Your task to perform on an android device: turn pop-ups on in chrome Image 0: 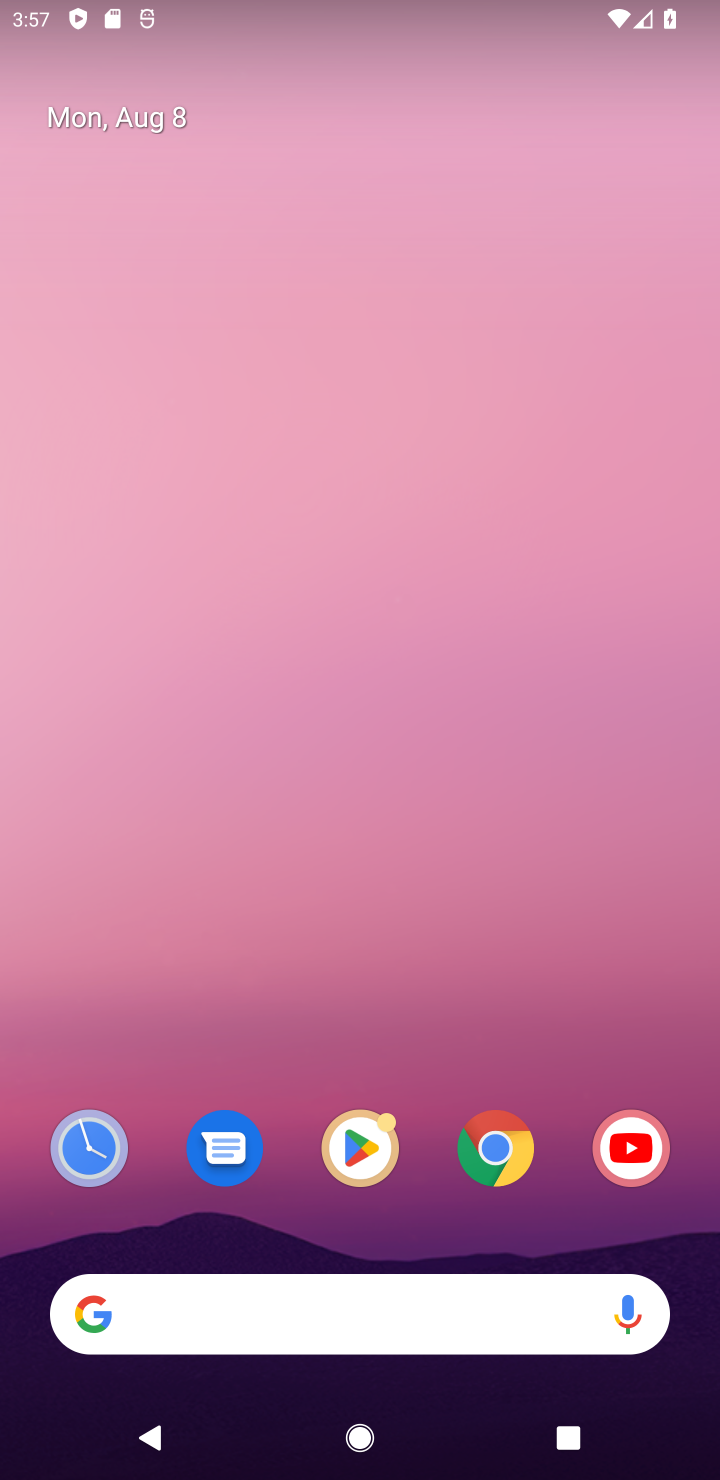
Step 0: drag from (202, 1082) to (21, 258)
Your task to perform on an android device: turn pop-ups on in chrome Image 1: 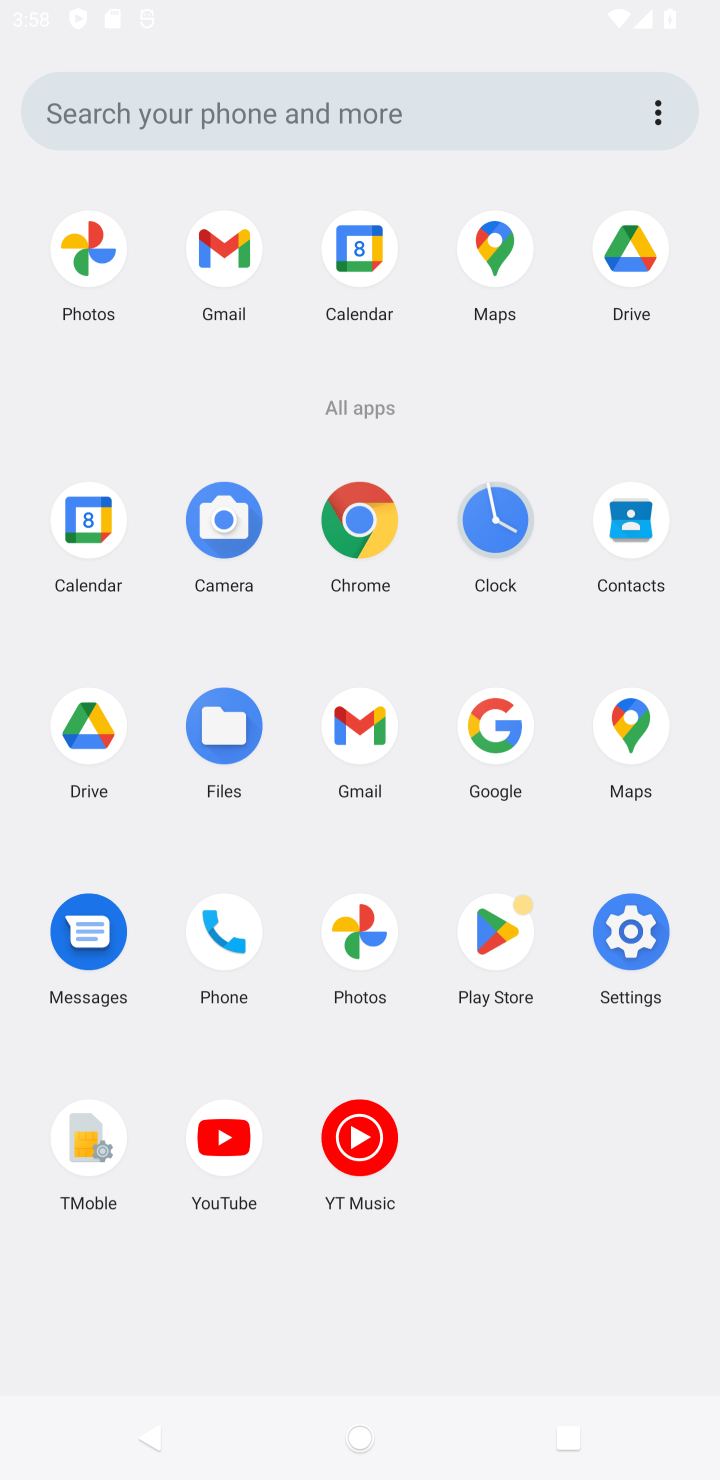
Step 1: click (359, 530)
Your task to perform on an android device: turn pop-ups on in chrome Image 2: 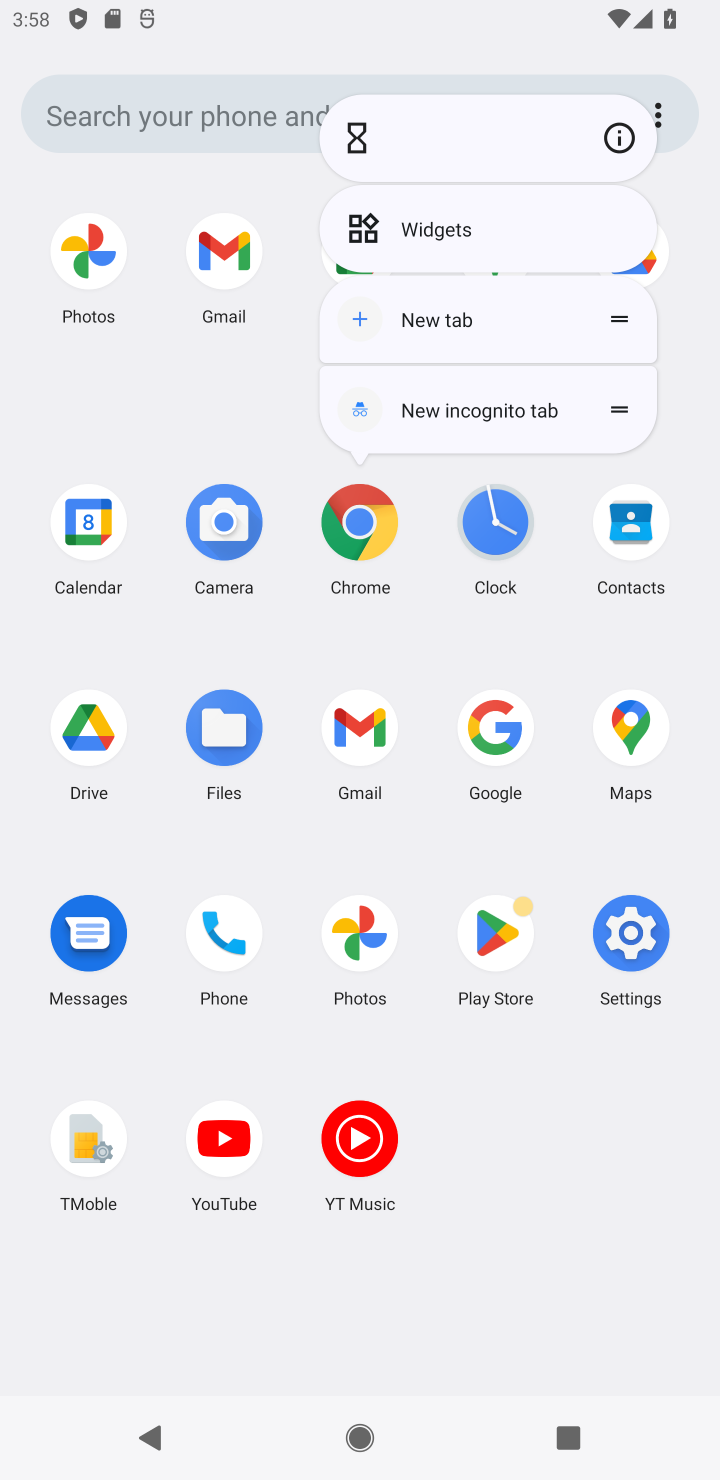
Step 2: click (359, 523)
Your task to perform on an android device: turn pop-ups on in chrome Image 3: 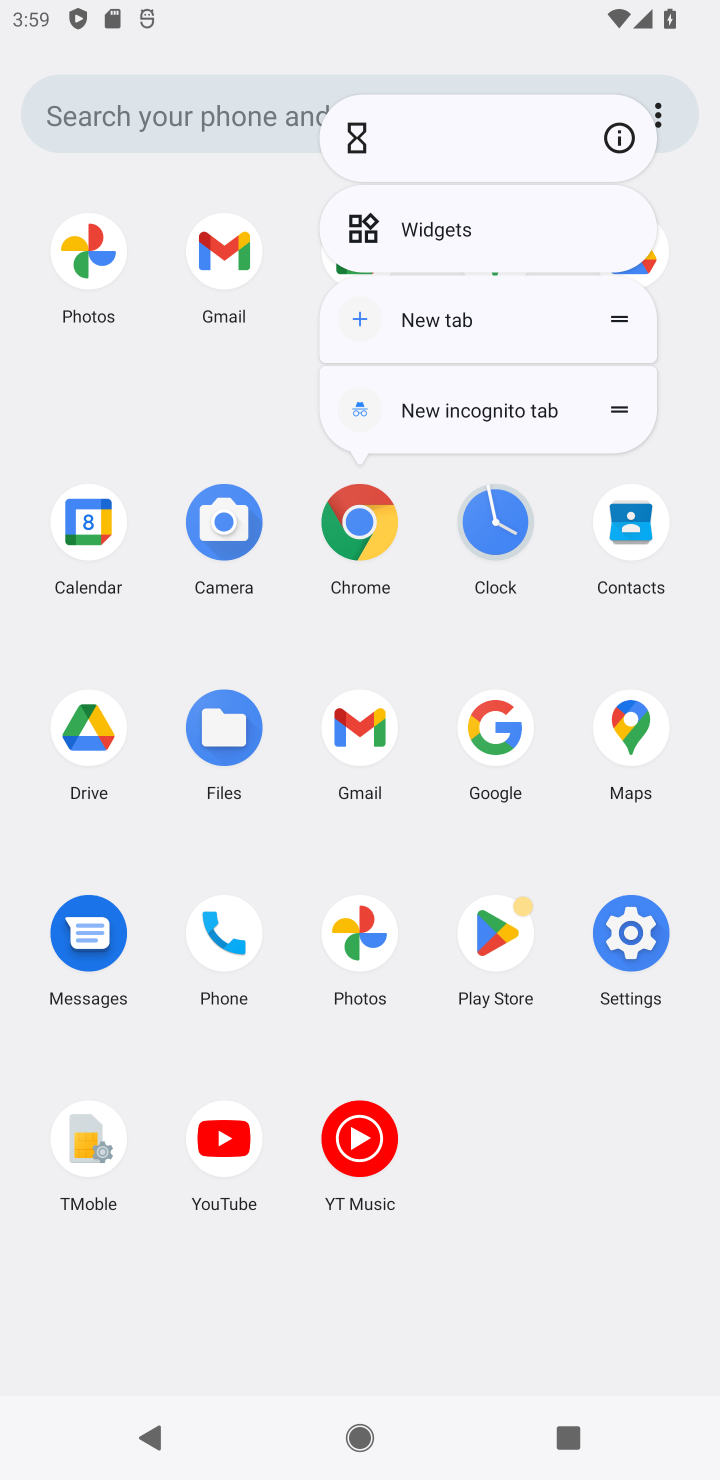
Step 3: click (359, 521)
Your task to perform on an android device: turn pop-ups on in chrome Image 4: 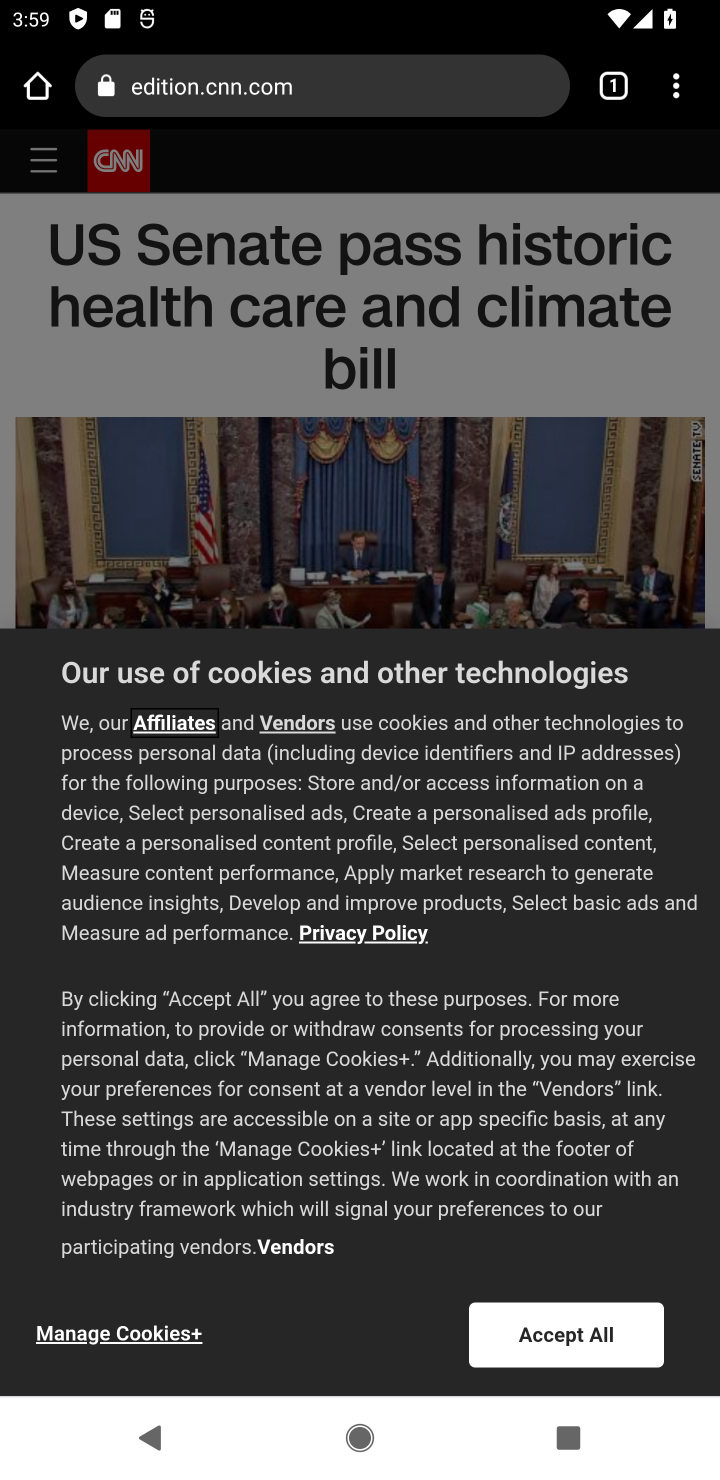
Step 4: drag from (684, 72) to (462, 1075)
Your task to perform on an android device: turn pop-ups on in chrome Image 5: 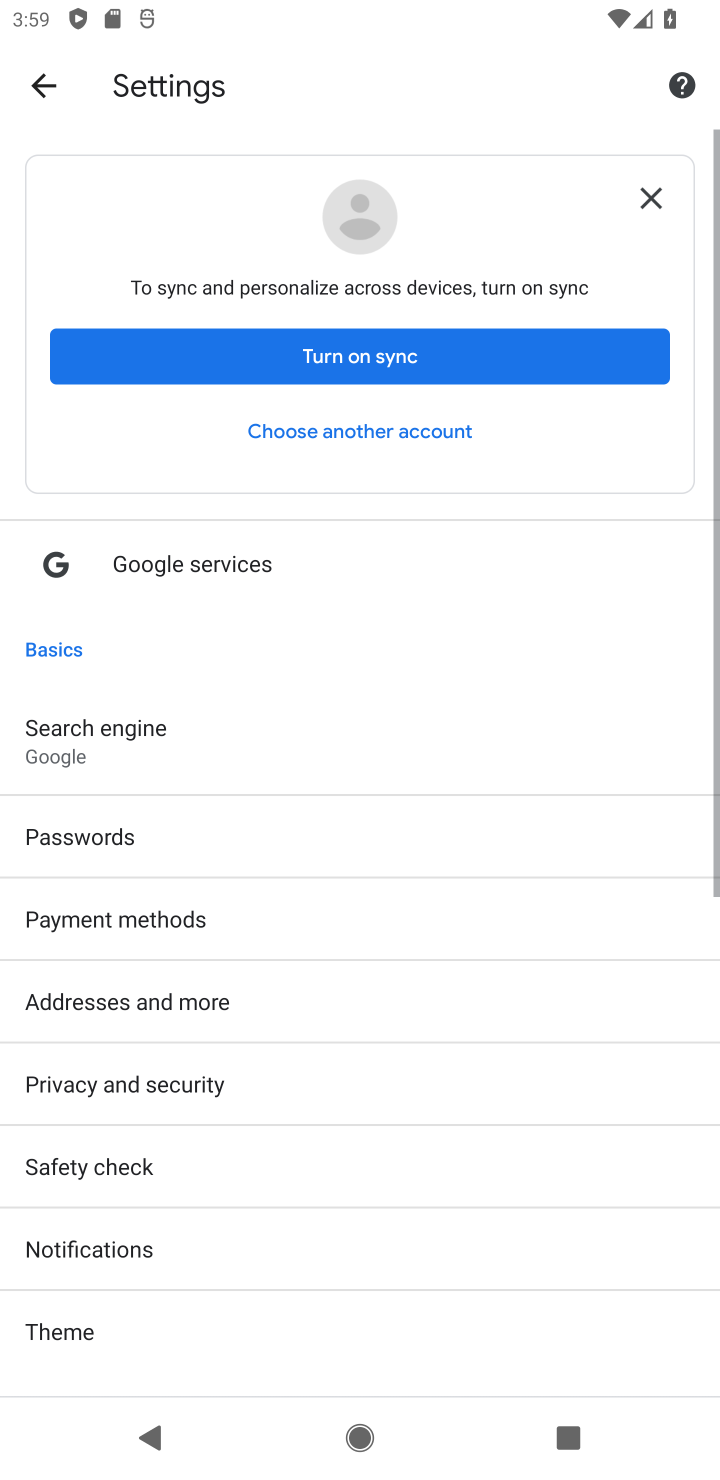
Step 5: drag from (288, 1156) to (224, 327)
Your task to perform on an android device: turn pop-ups on in chrome Image 6: 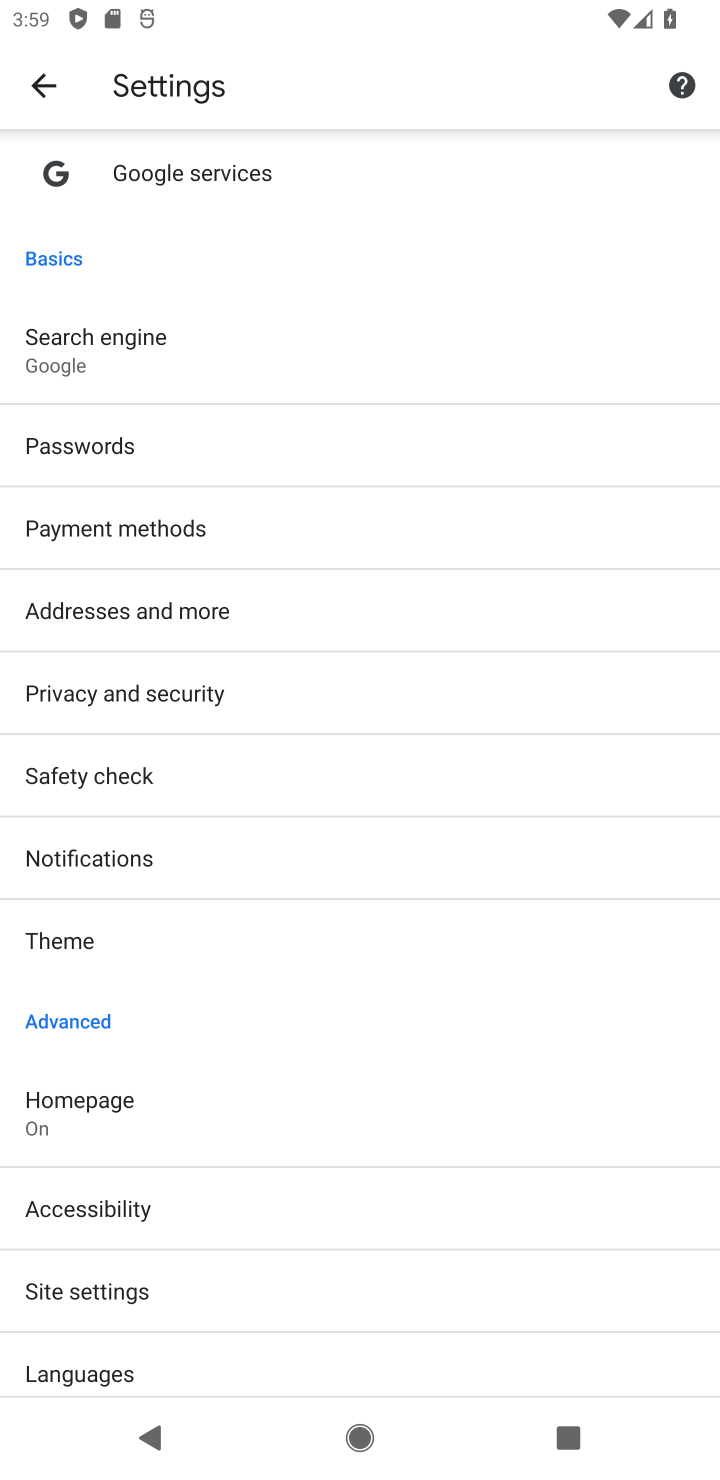
Step 6: drag from (145, 1199) to (105, 223)
Your task to perform on an android device: turn pop-ups on in chrome Image 7: 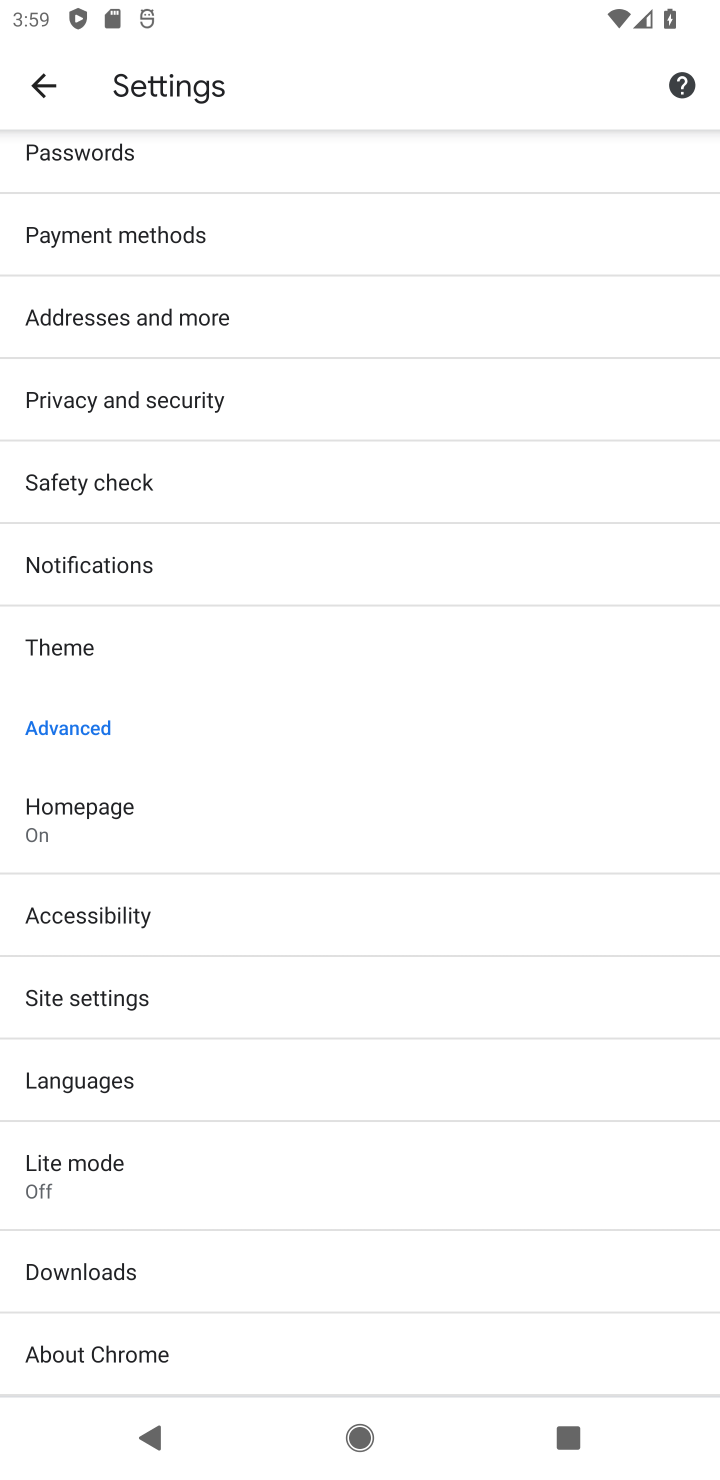
Step 7: click (65, 986)
Your task to perform on an android device: turn pop-ups on in chrome Image 8: 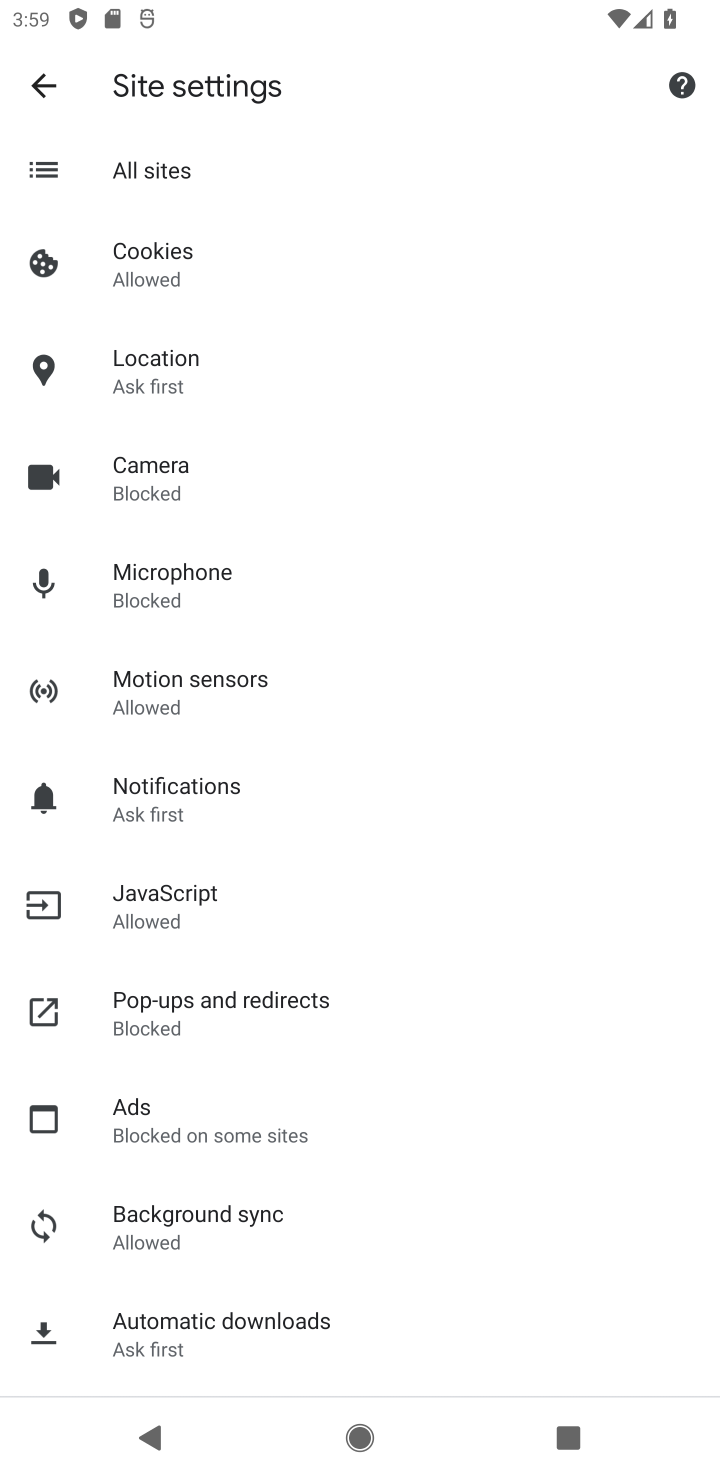
Step 8: drag from (237, 1281) to (171, 272)
Your task to perform on an android device: turn pop-ups on in chrome Image 9: 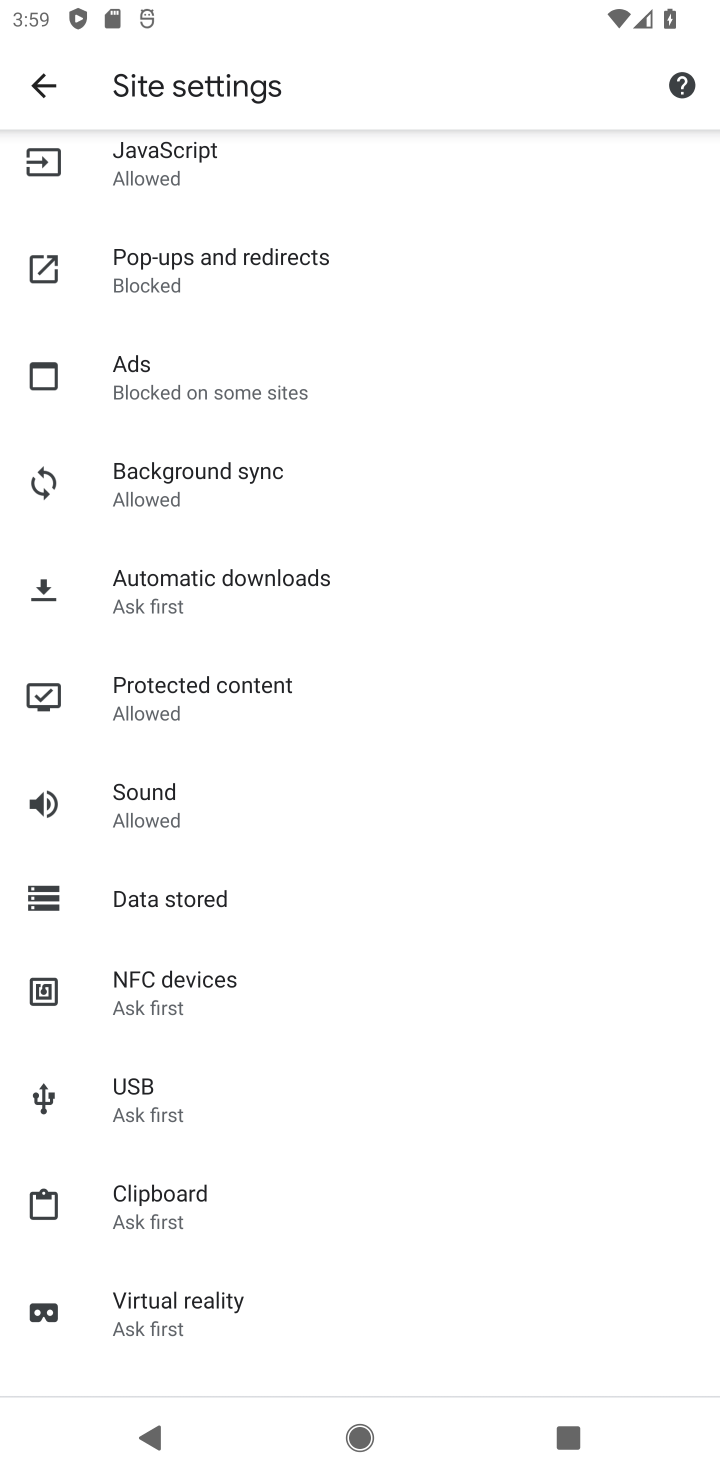
Step 9: drag from (258, 1227) to (220, 327)
Your task to perform on an android device: turn pop-ups on in chrome Image 10: 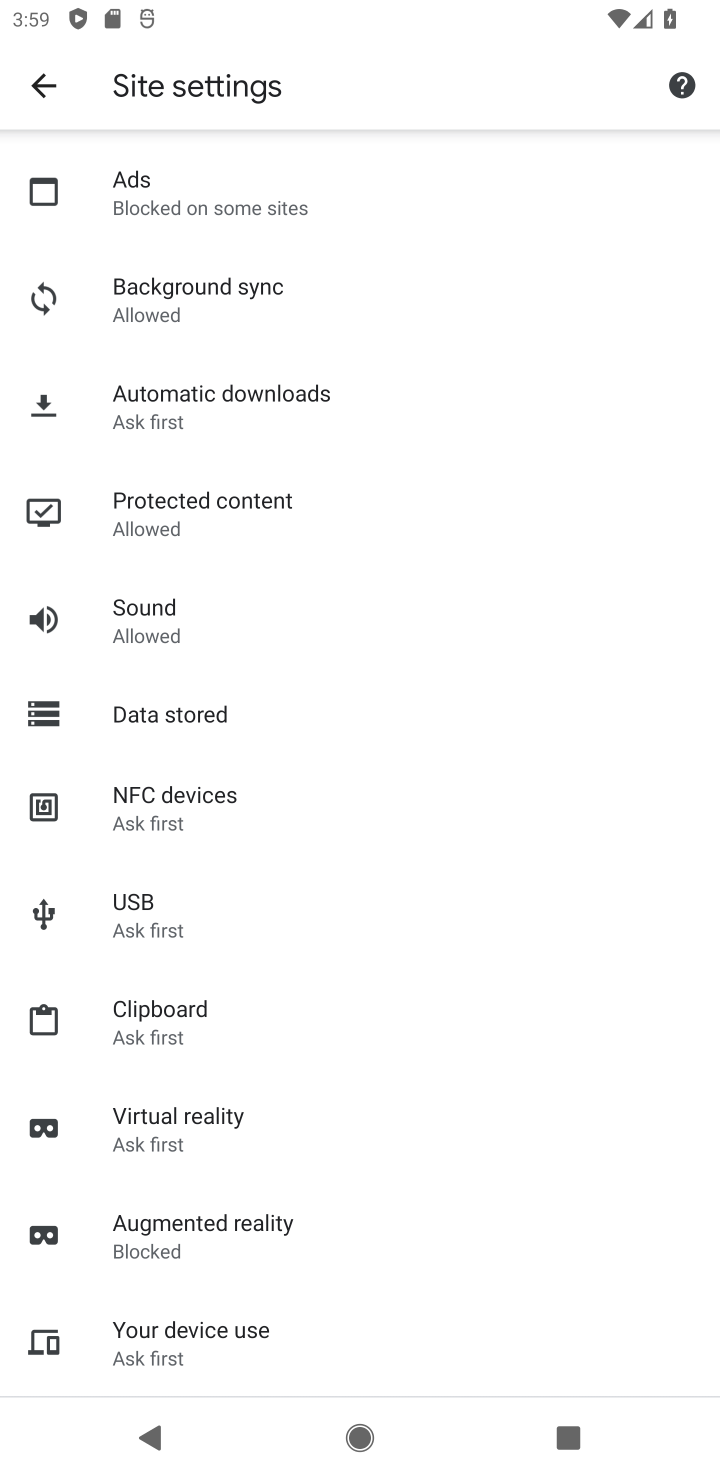
Step 10: drag from (237, 366) to (444, 1432)
Your task to perform on an android device: turn pop-ups on in chrome Image 11: 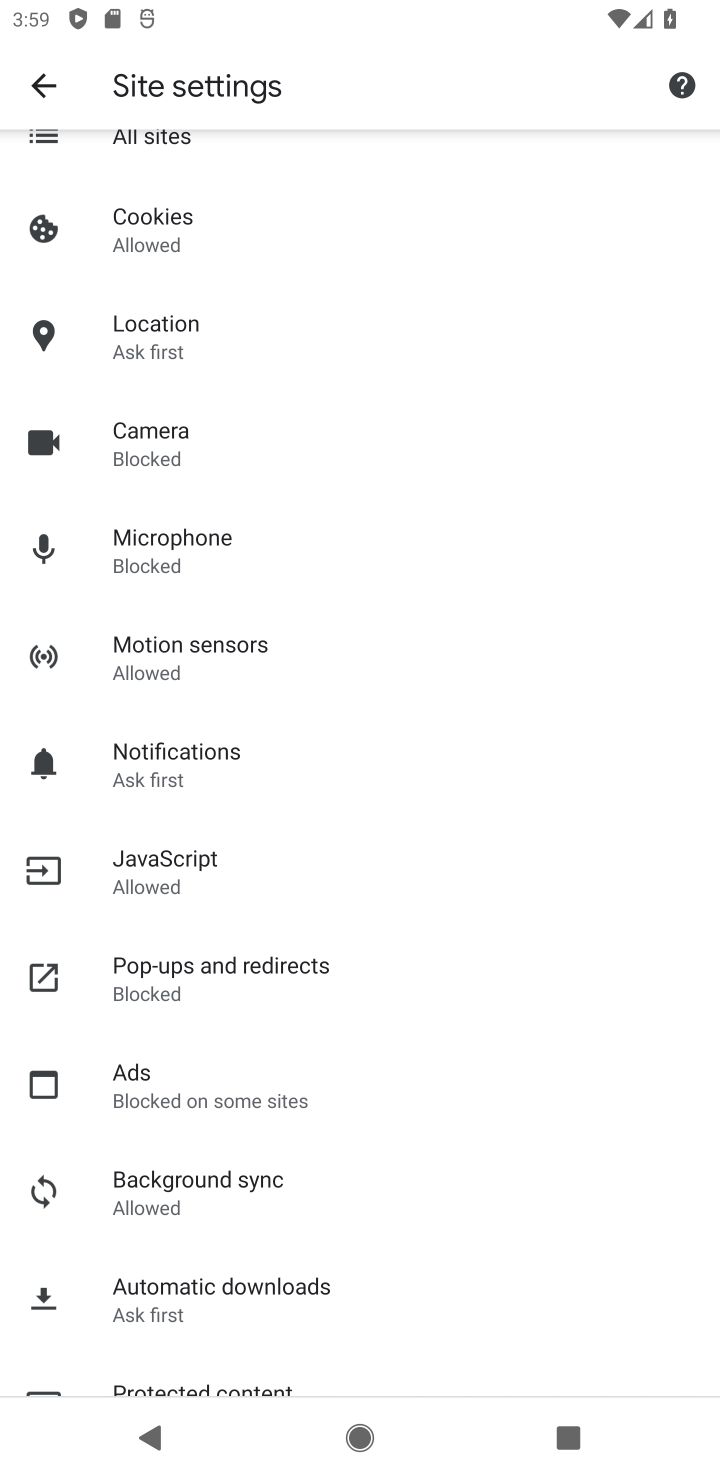
Step 11: drag from (311, 854) to (372, 1151)
Your task to perform on an android device: turn pop-ups on in chrome Image 12: 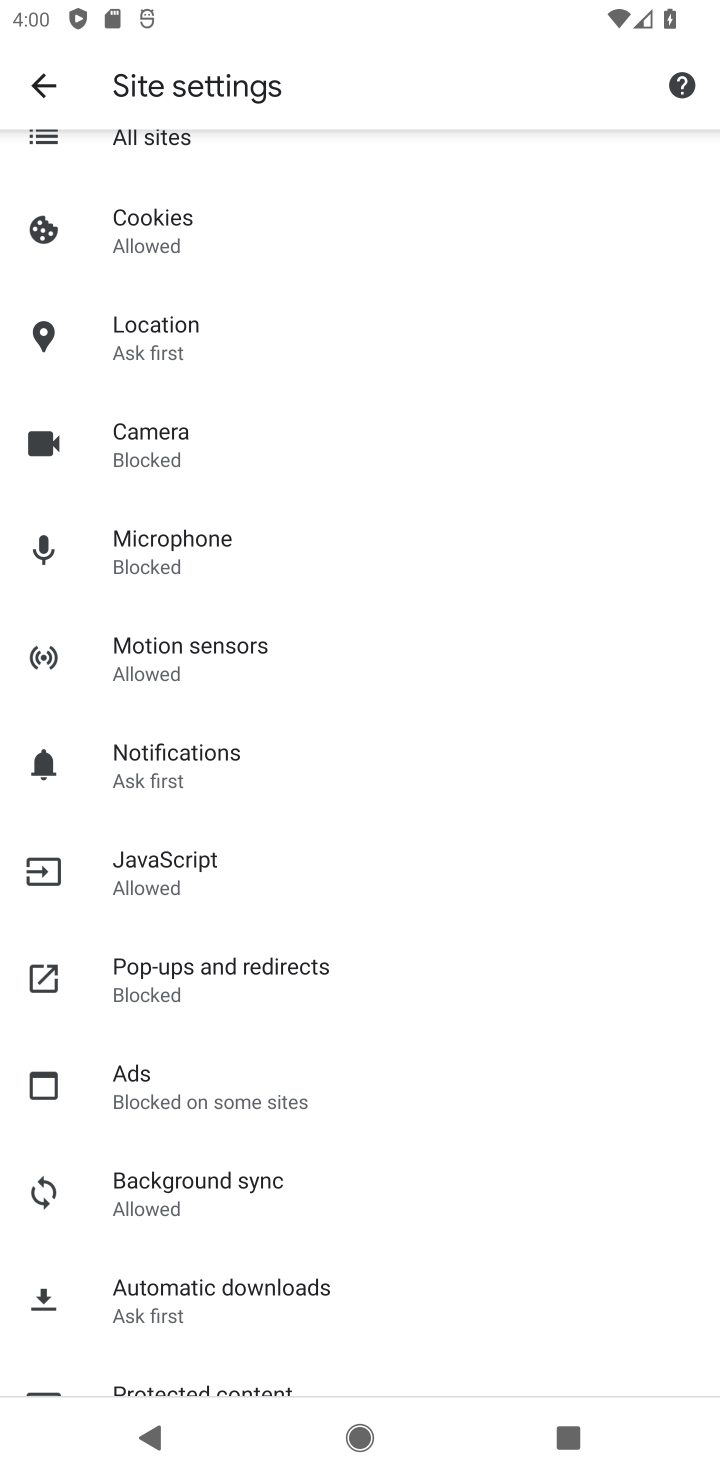
Step 12: drag from (285, 416) to (489, 1272)
Your task to perform on an android device: turn pop-ups on in chrome Image 13: 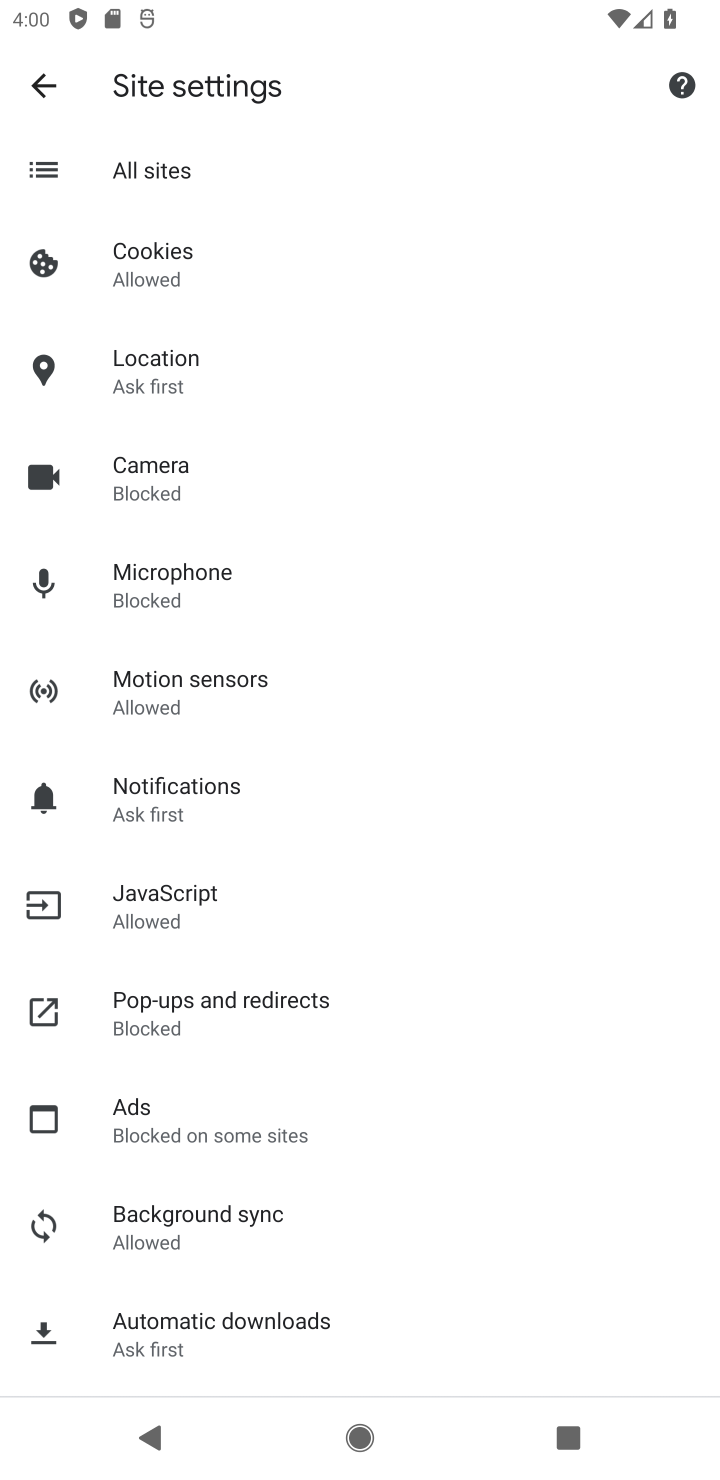
Step 13: click (201, 1034)
Your task to perform on an android device: turn pop-ups on in chrome Image 14: 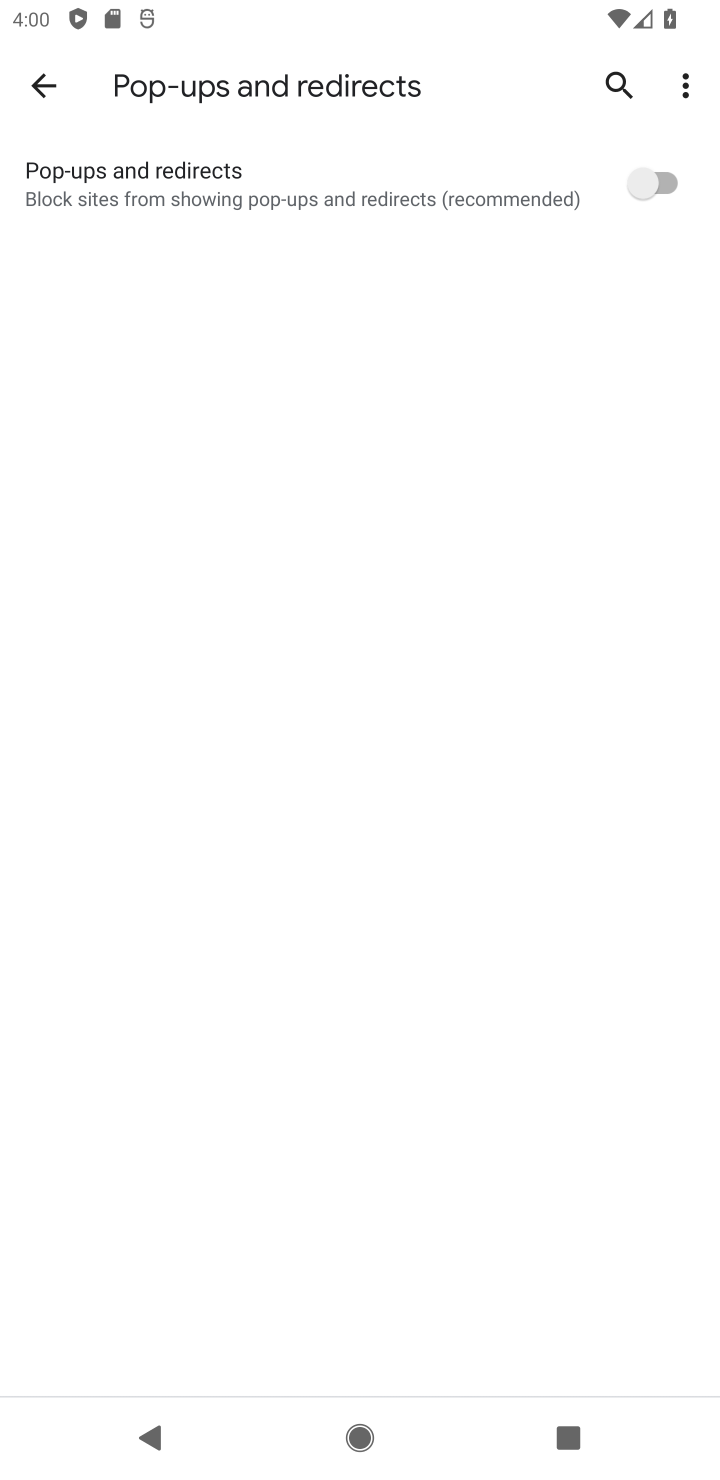
Step 14: click (649, 195)
Your task to perform on an android device: turn pop-ups on in chrome Image 15: 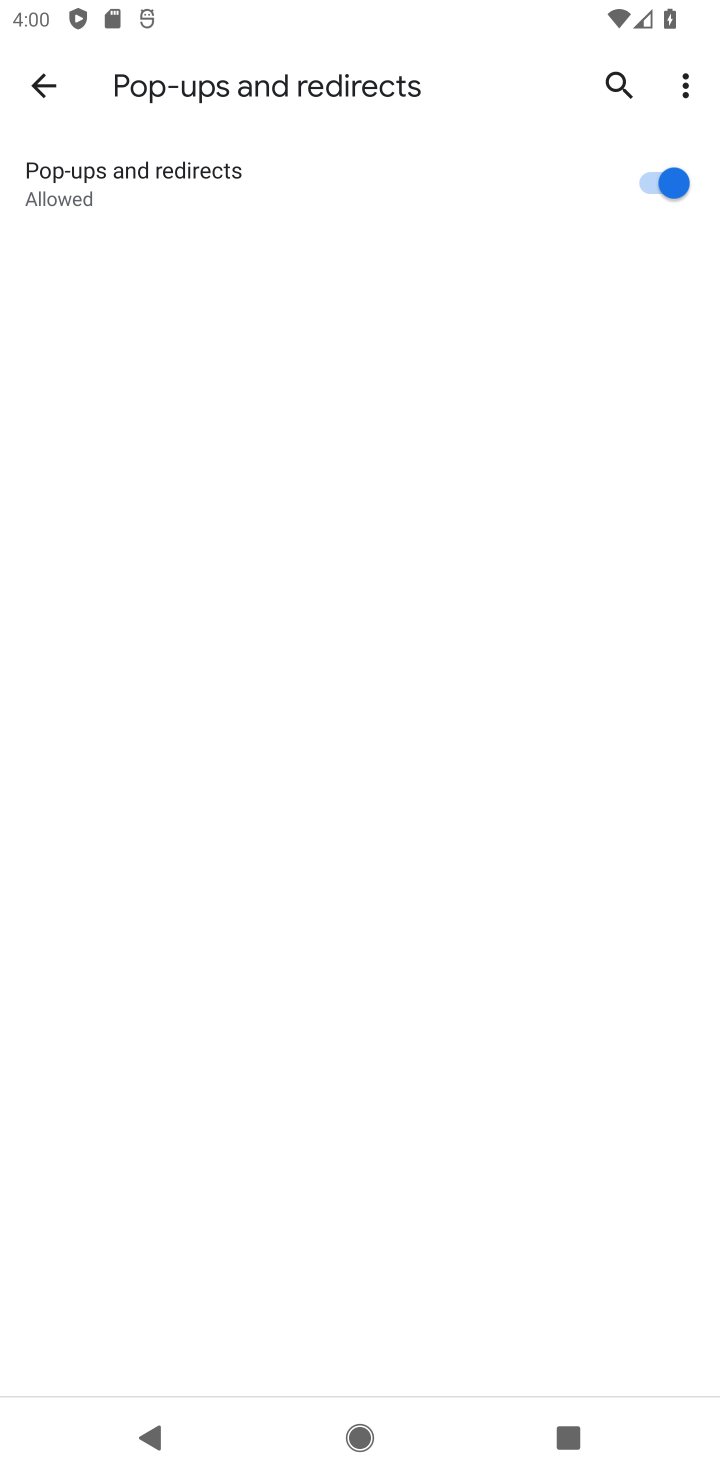
Step 15: task complete